Your task to perform on an android device: Open location settings Image 0: 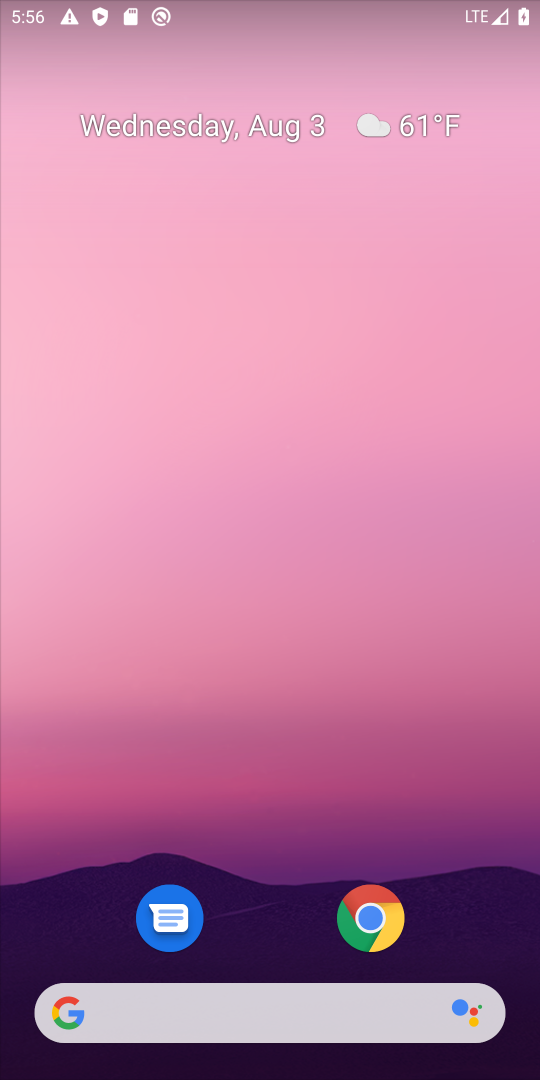
Step 0: drag from (286, 1021) to (232, 195)
Your task to perform on an android device: Open location settings Image 1: 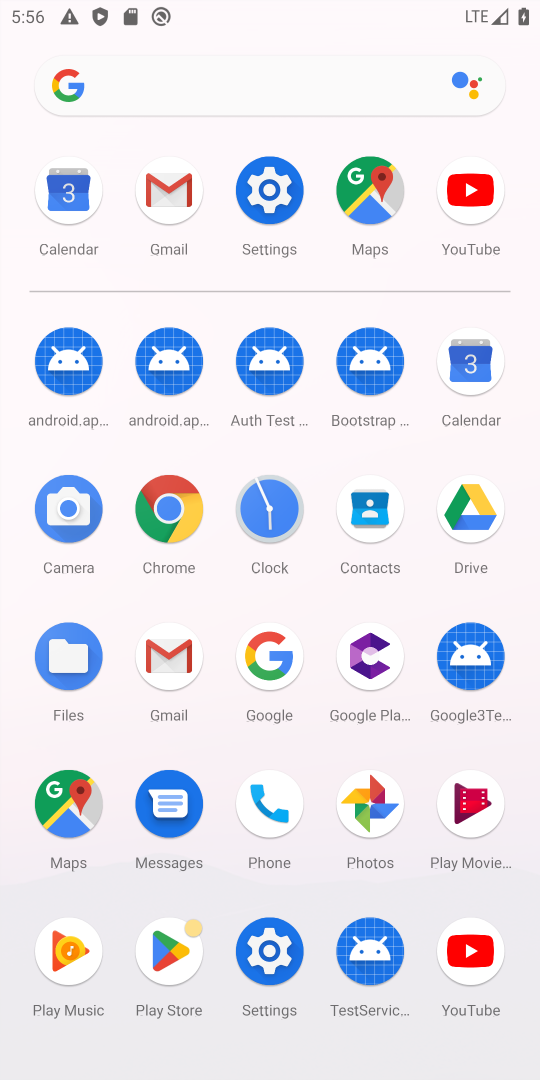
Step 1: click (277, 929)
Your task to perform on an android device: Open location settings Image 2: 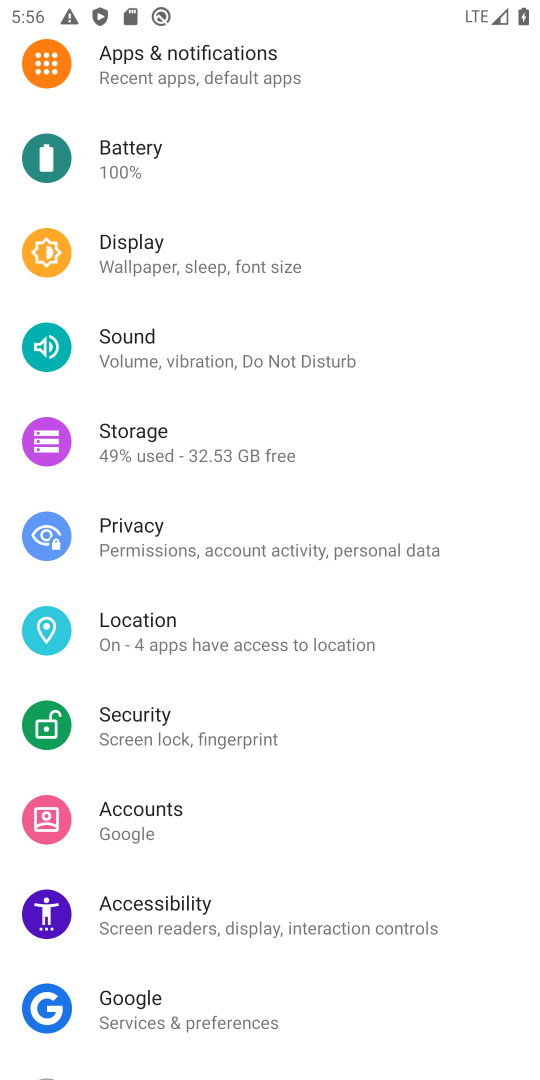
Step 2: click (203, 633)
Your task to perform on an android device: Open location settings Image 3: 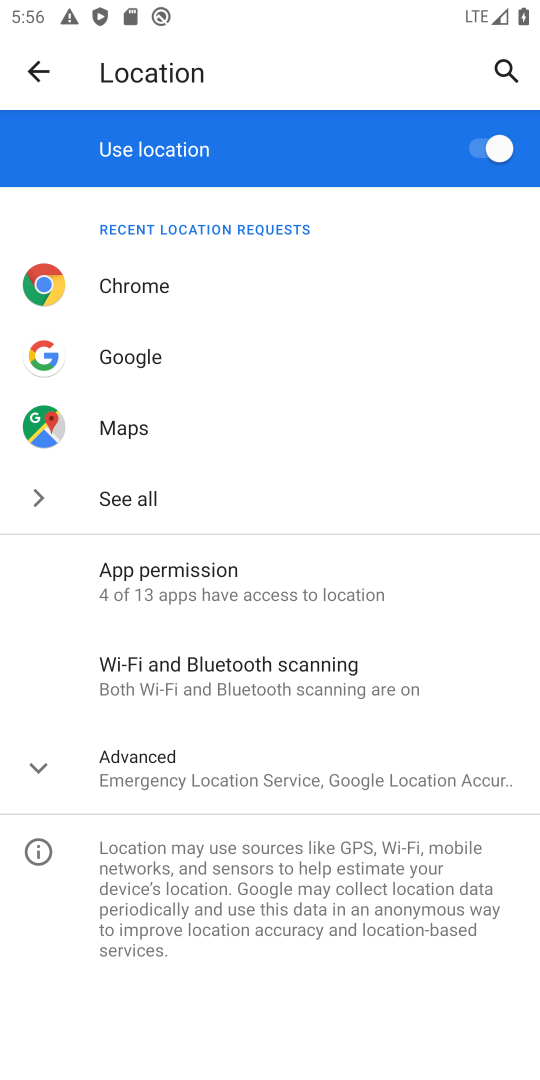
Step 3: task complete